Your task to perform on an android device: turn off location Image 0: 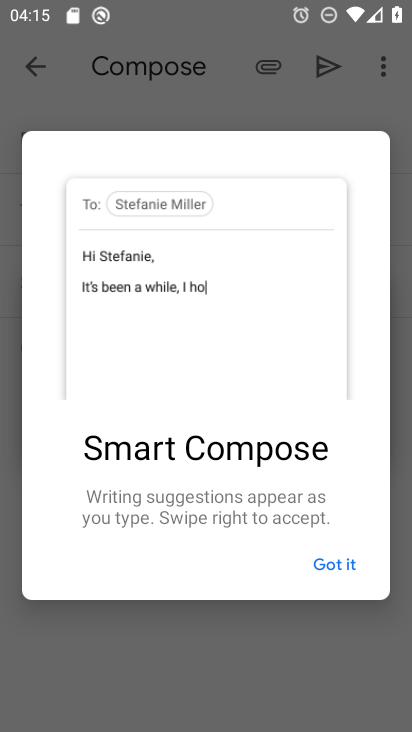
Step 0: press home button
Your task to perform on an android device: turn off location Image 1: 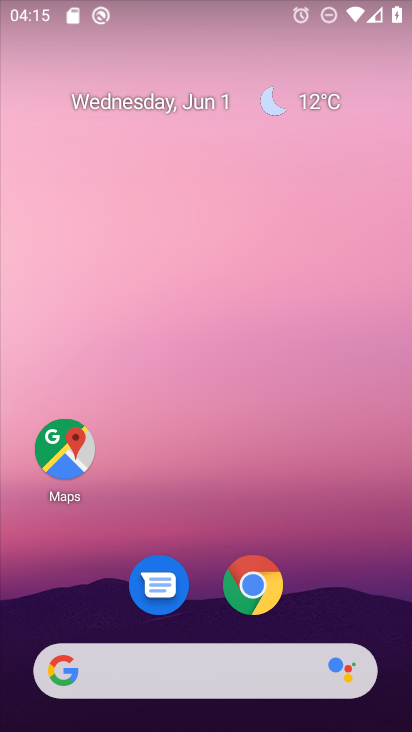
Step 1: drag from (217, 510) to (212, 18)
Your task to perform on an android device: turn off location Image 2: 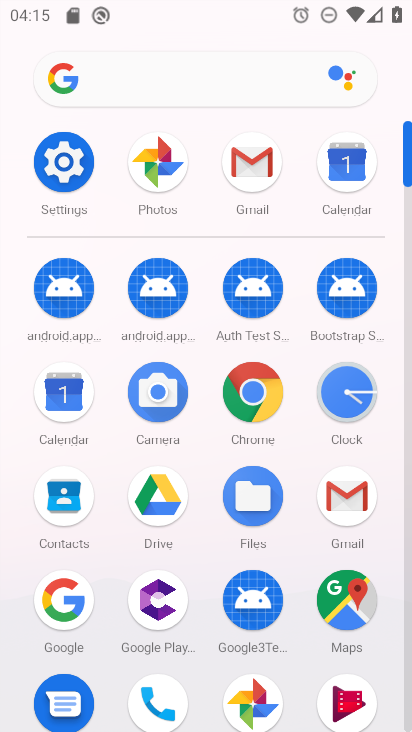
Step 2: click (65, 171)
Your task to perform on an android device: turn off location Image 3: 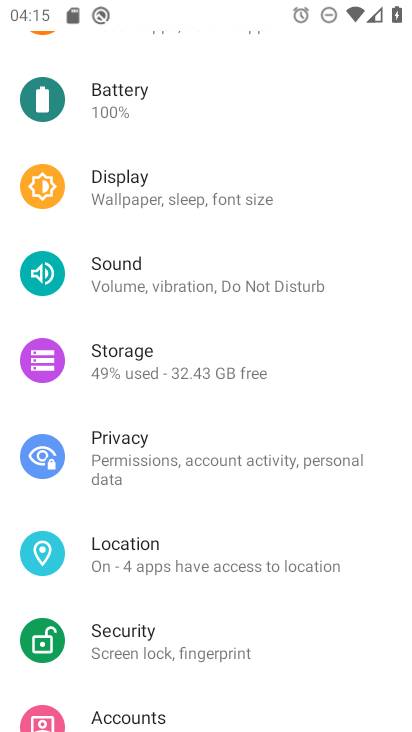
Step 3: click (230, 544)
Your task to perform on an android device: turn off location Image 4: 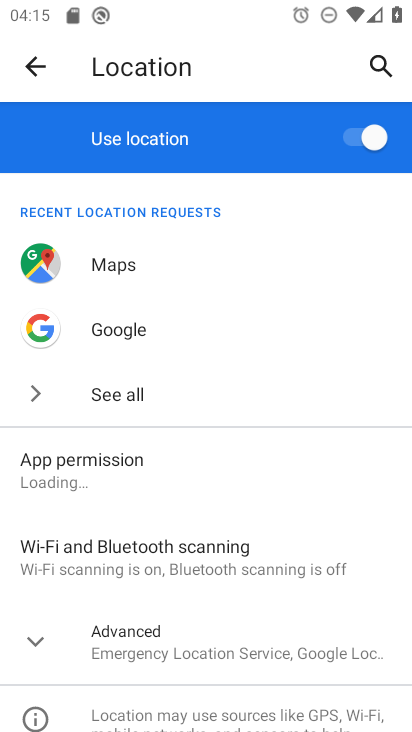
Step 4: click (356, 130)
Your task to perform on an android device: turn off location Image 5: 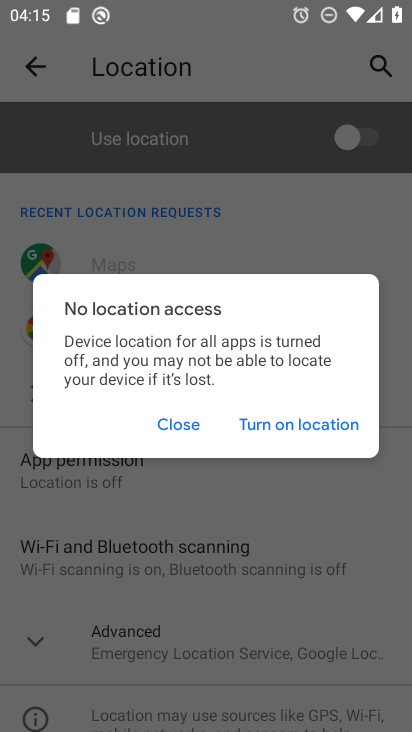
Step 5: task complete